Your task to perform on an android device: toggle show notifications on the lock screen Image 0: 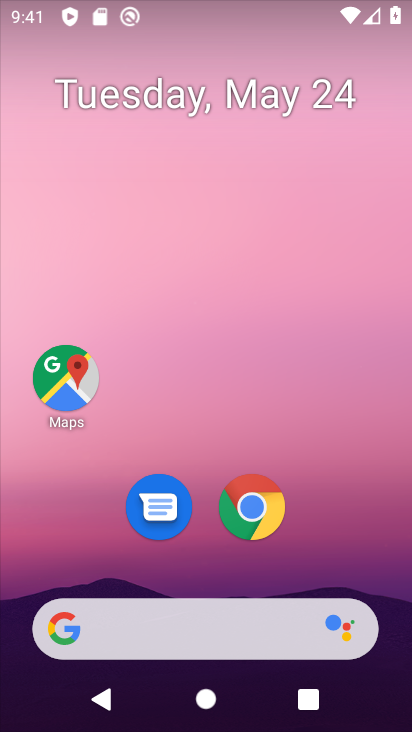
Step 0: drag from (210, 548) to (191, 56)
Your task to perform on an android device: toggle show notifications on the lock screen Image 1: 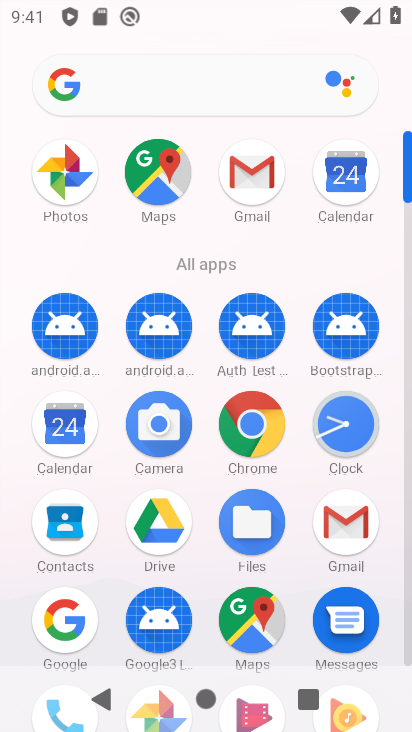
Step 1: drag from (168, 575) to (163, 218)
Your task to perform on an android device: toggle show notifications on the lock screen Image 2: 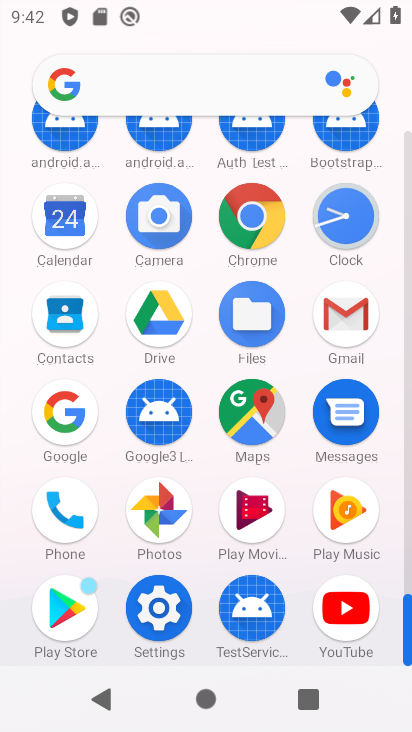
Step 2: click (142, 605)
Your task to perform on an android device: toggle show notifications on the lock screen Image 3: 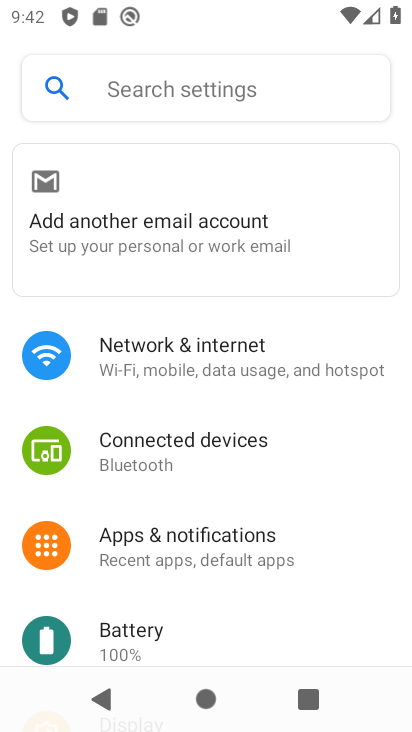
Step 3: click (177, 547)
Your task to perform on an android device: toggle show notifications on the lock screen Image 4: 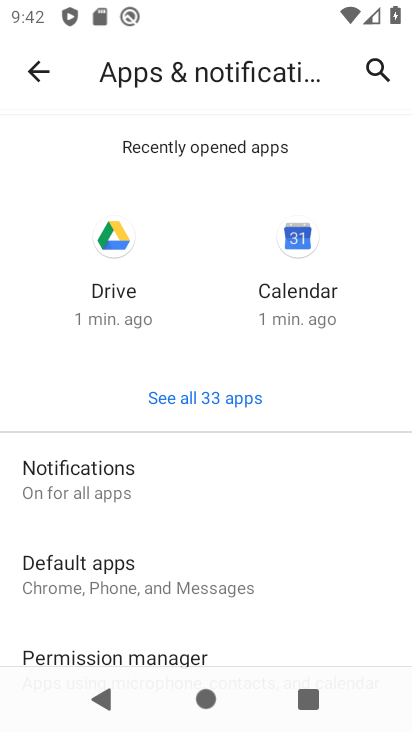
Step 4: click (120, 477)
Your task to perform on an android device: toggle show notifications on the lock screen Image 5: 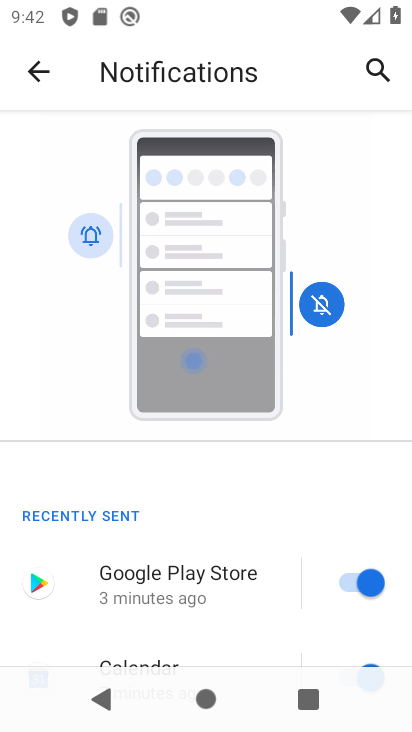
Step 5: drag from (183, 628) to (175, 326)
Your task to perform on an android device: toggle show notifications on the lock screen Image 6: 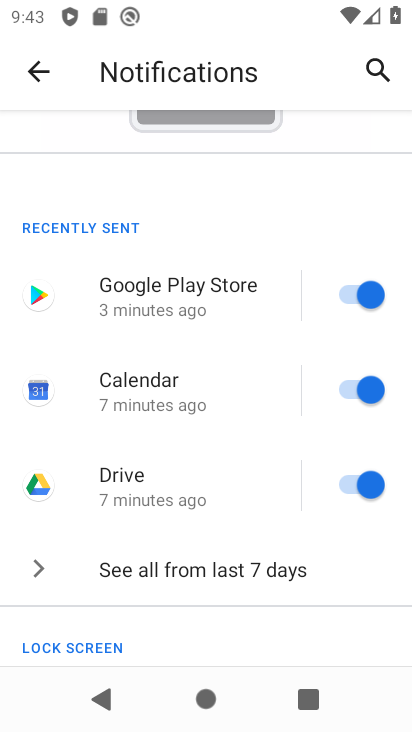
Step 6: drag from (194, 585) to (162, 217)
Your task to perform on an android device: toggle show notifications on the lock screen Image 7: 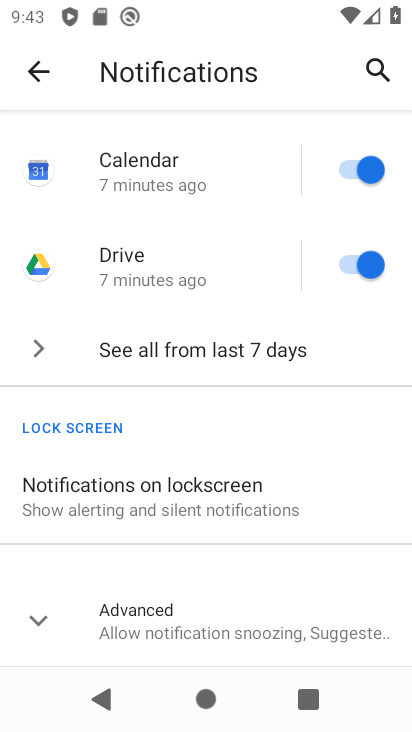
Step 7: click (87, 483)
Your task to perform on an android device: toggle show notifications on the lock screen Image 8: 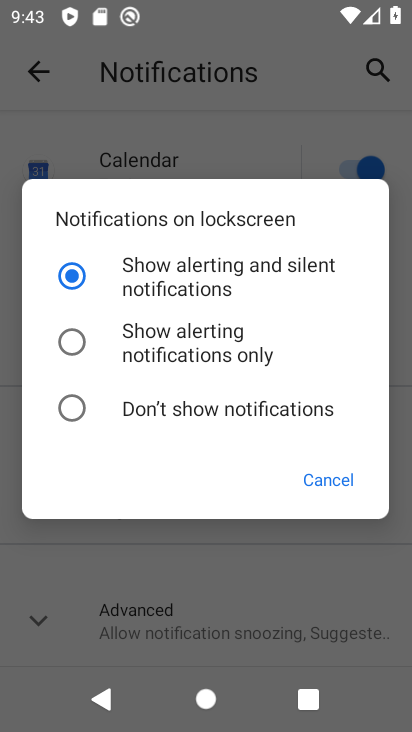
Step 8: click (181, 343)
Your task to perform on an android device: toggle show notifications on the lock screen Image 9: 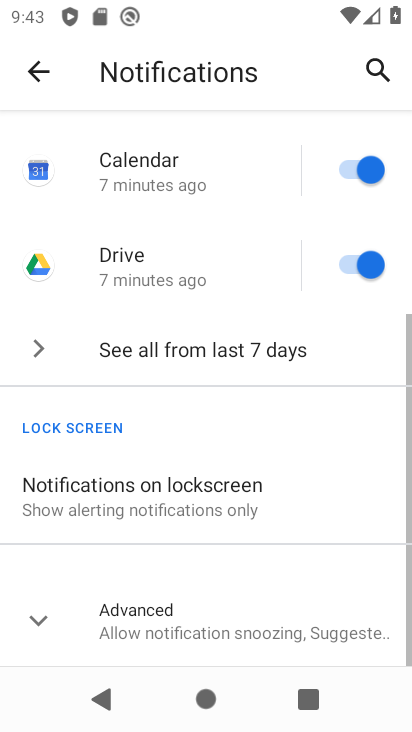
Step 9: task complete